Your task to perform on an android device: What's the weather like in Singapore? Image 0: 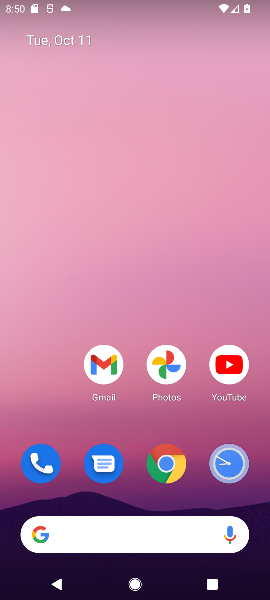
Step 0: drag from (93, 489) to (93, 136)
Your task to perform on an android device: What's the weather like in Singapore? Image 1: 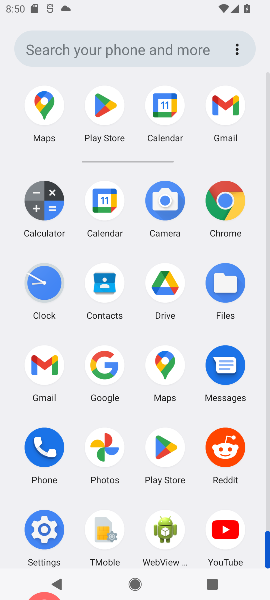
Step 1: click (40, 360)
Your task to perform on an android device: What's the weather like in Singapore? Image 2: 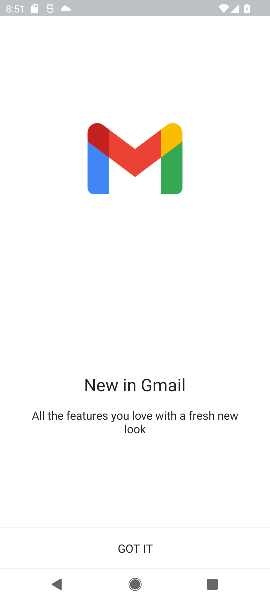
Step 2: press home button
Your task to perform on an android device: What's the weather like in Singapore? Image 3: 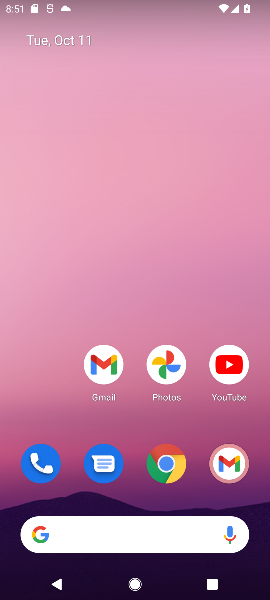
Step 3: drag from (96, 521) to (130, 138)
Your task to perform on an android device: What's the weather like in Singapore? Image 4: 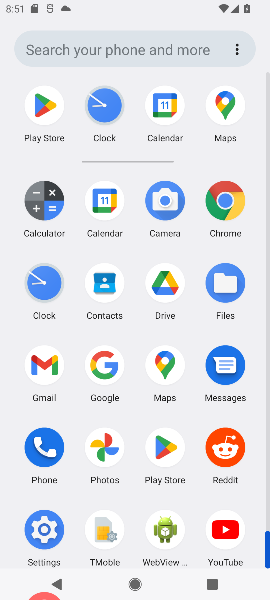
Step 4: click (99, 359)
Your task to perform on an android device: What's the weather like in Singapore? Image 5: 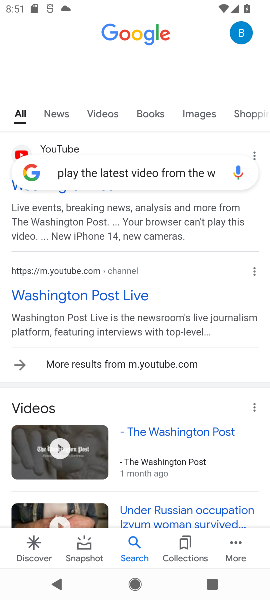
Step 5: click (98, 167)
Your task to perform on an android device: What's the weather like in Singapore? Image 6: 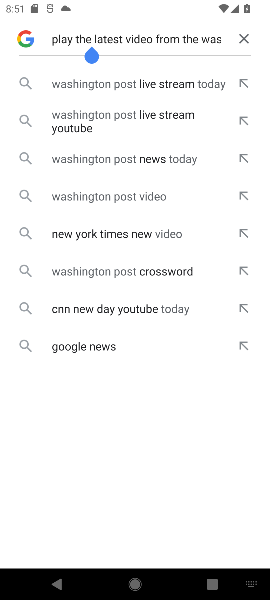
Step 6: click (241, 40)
Your task to perform on an android device: What's the weather like in Singapore? Image 7: 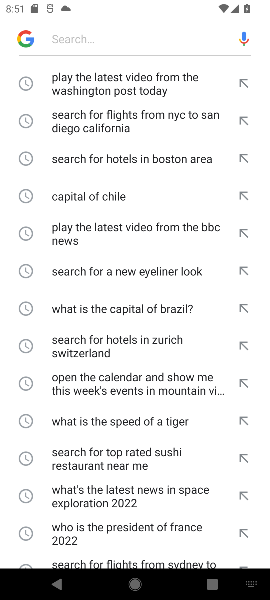
Step 7: click (158, 31)
Your task to perform on an android device: What's the weather like in Singapore? Image 8: 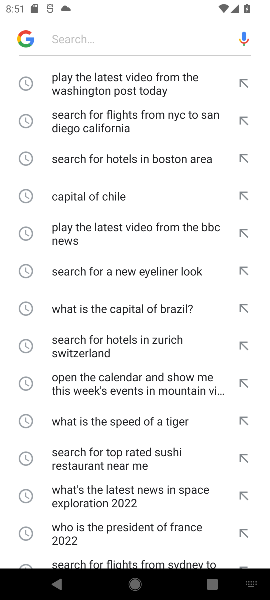
Step 8: type "What's the weather like in Singapore? "
Your task to perform on an android device: What's the weather like in Singapore? Image 9: 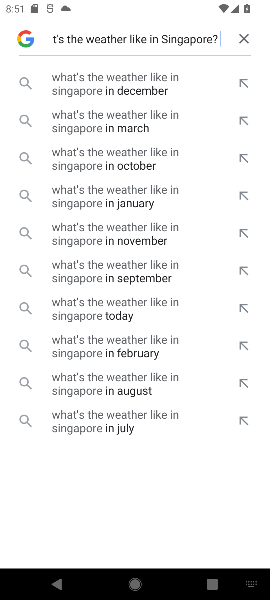
Step 9: click (136, 78)
Your task to perform on an android device: What's the weather like in Singapore? Image 10: 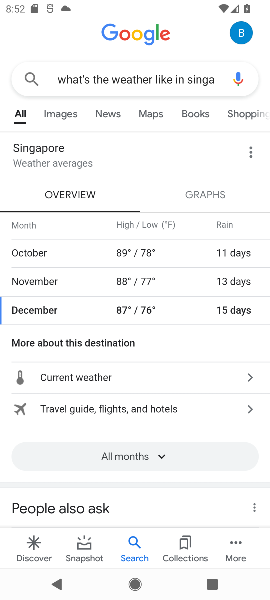
Step 10: task complete